Your task to perform on an android device: Open Google Chrome and click the shortcut for Amazon.com Image 0: 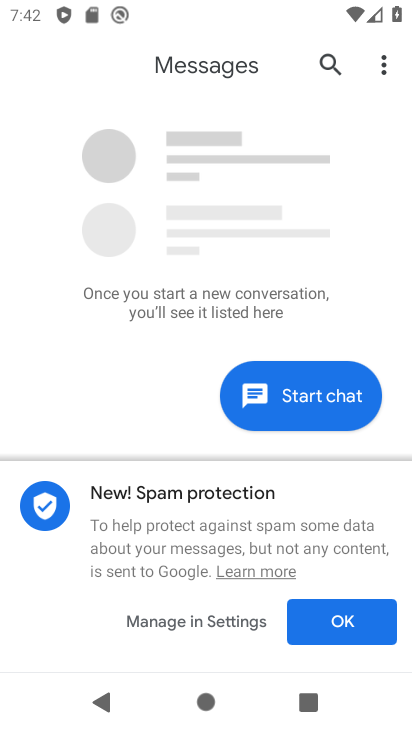
Step 0: press home button
Your task to perform on an android device: Open Google Chrome and click the shortcut for Amazon.com Image 1: 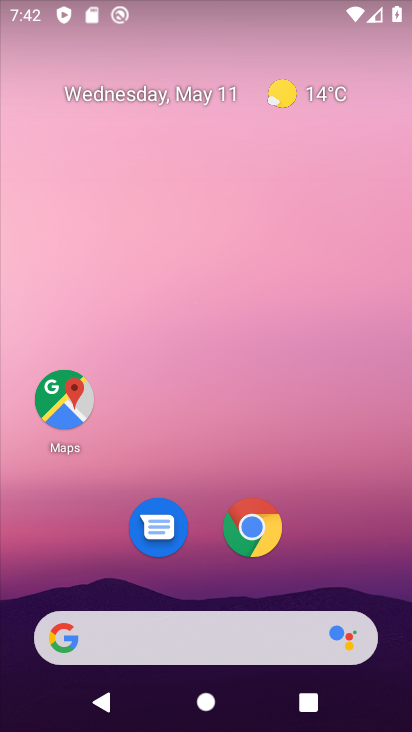
Step 1: click (253, 541)
Your task to perform on an android device: Open Google Chrome and click the shortcut for Amazon.com Image 2: 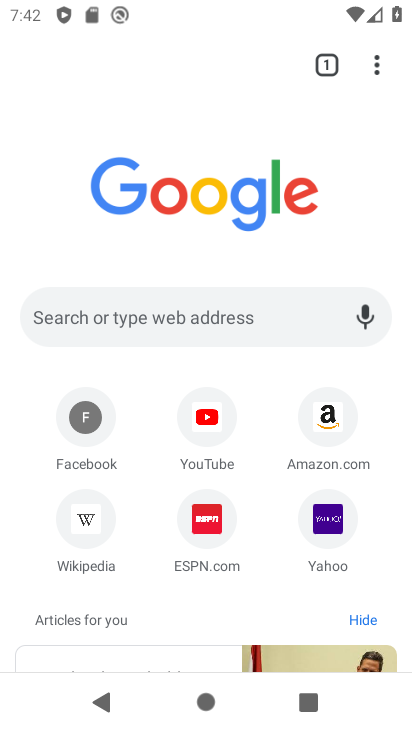
Step 2: click (318, 420)
Your task to perform on an android device: Open Google Chrome and click the shortcut for Amazon.com Image 3: 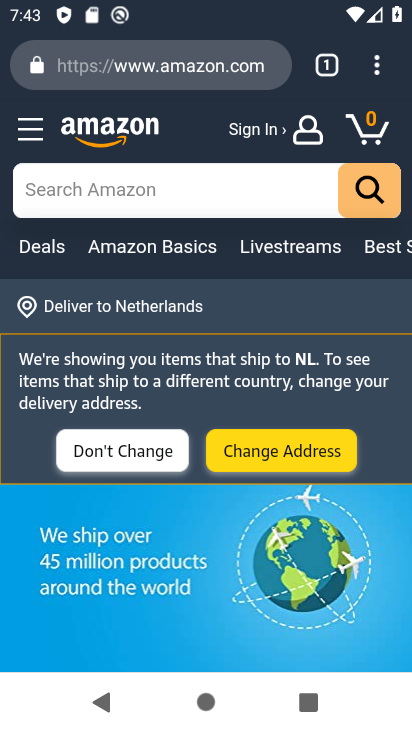
Step 3: task complete